Your task to perform on an android device: toggle airplane mode Image 0: 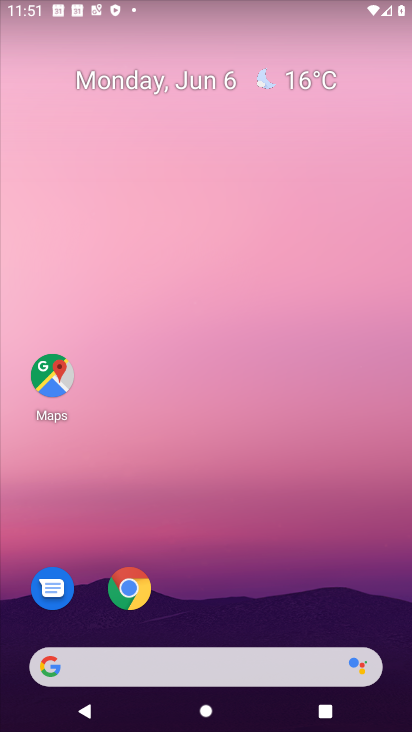
Step 0: drag from (193, 645) to (41, 4)
Your task to perform on an android device: toggle airplane mode Image 1: 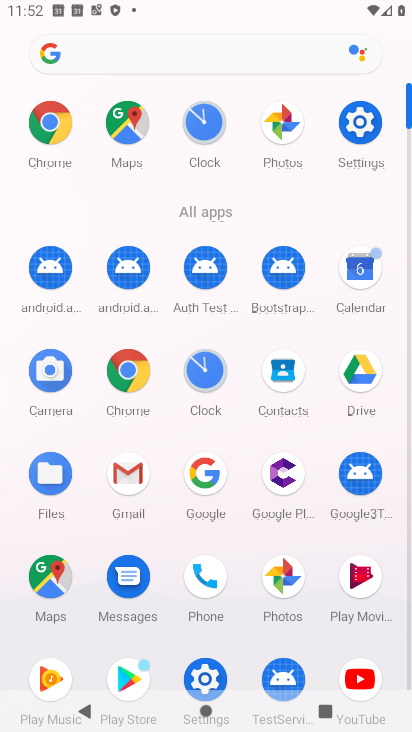
Step 1: click (364, 125)
Your task to perform on an android device: toggle airplane mode Image 2: 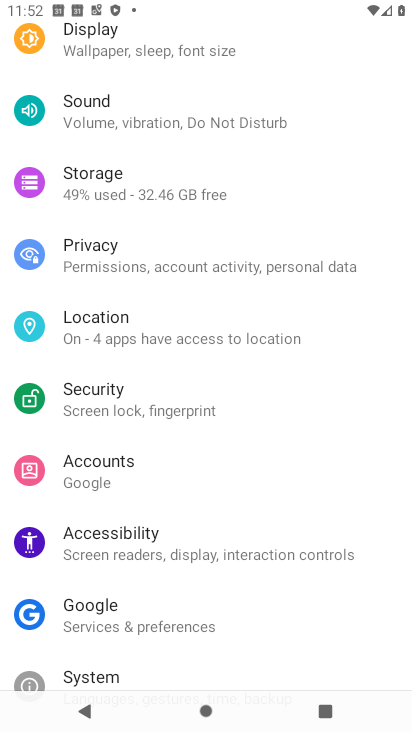
Step 2: drag from (142, 253) to (104, 658)
Your task to perform on an android device: toggle airplane mode Image 3: 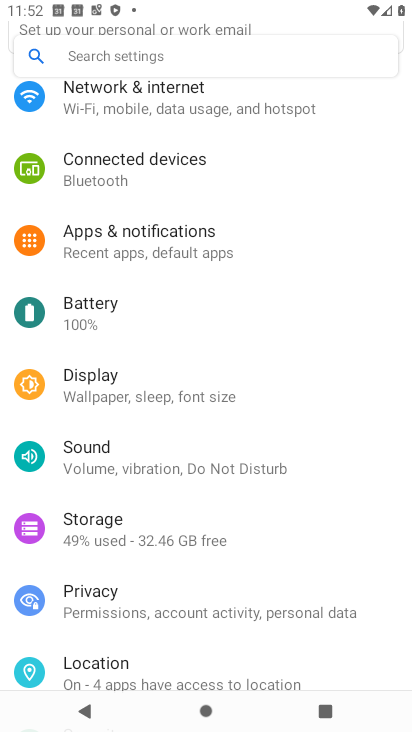
Step 3: click (168, 123)
Your task to perform on an android device: toggle airplane mode Image 4: 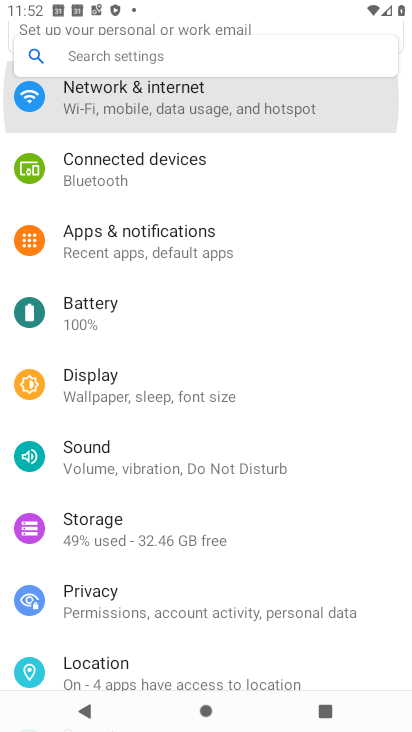
Step 4: click (168, 123)
Your task to perform on an android device: toggle airplane mode Image 5: 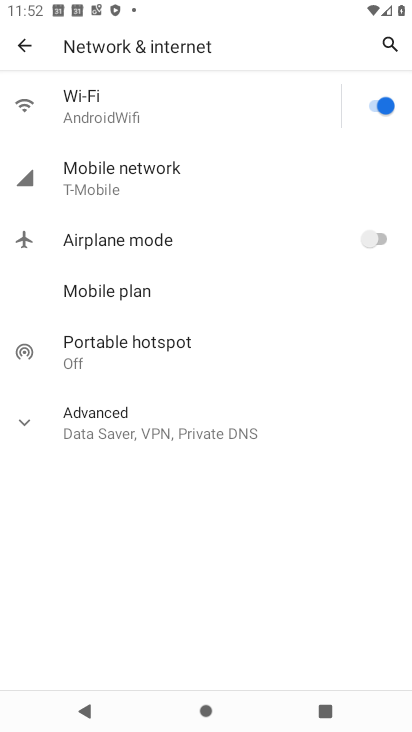
Step 5: click (357, 243)
Your task to perform on an android device: toggle airplane mode Image 6: 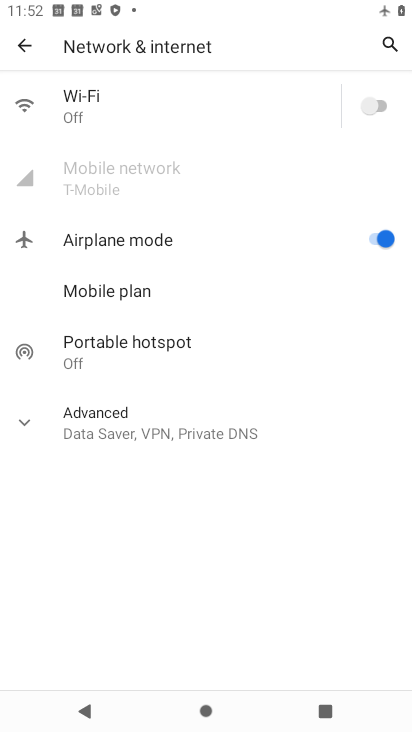
Step 6: task complete